Your task to perform on an android device: check android version Image 0: 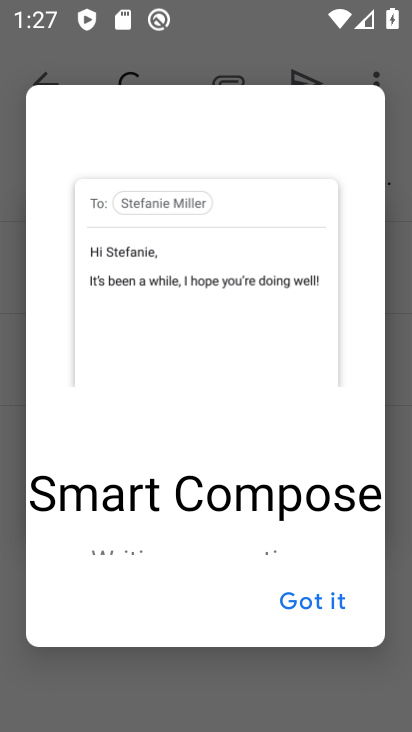
Step 0: press home button
Your task to perform on an android device: check android version Image 1: 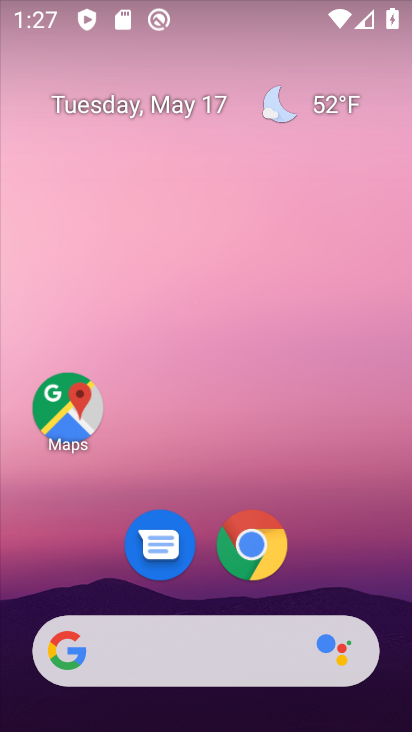
Step 1: drag from (355, 548) to (366, 114)
Your task to perform on an android device: check android version Image 2: 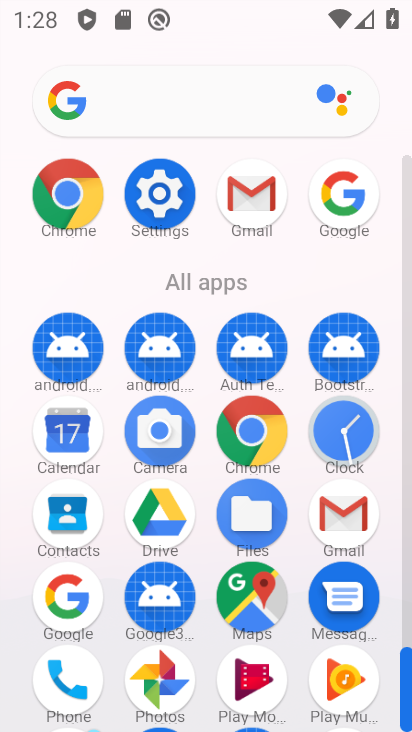
Step 2: click (164, 218)
Your task to perform on an android device: check android version Image 3: 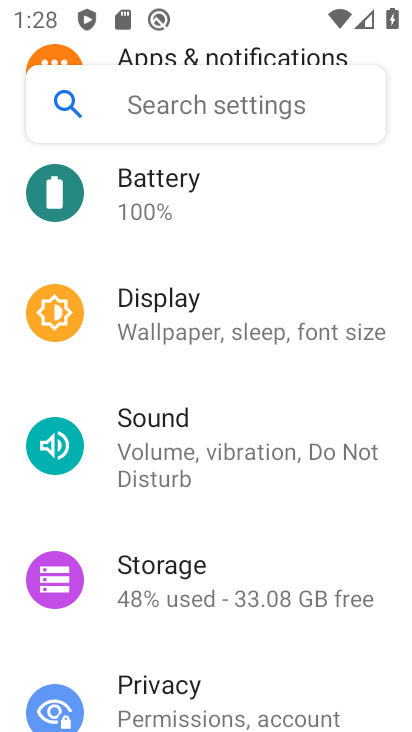
Step 3: drag from (349, 272) to (347, 394)
Your task to perform on an android device: check android version Image 4: 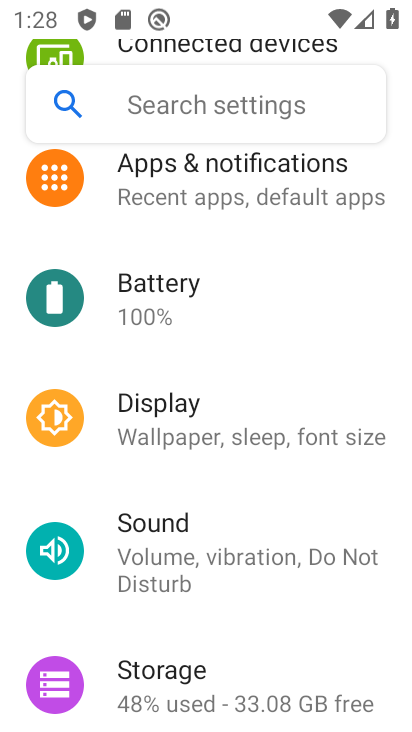
Step 4: drag from (361, 264) to (344, 394)
Your task to perform on an android device: check android version Image 5: 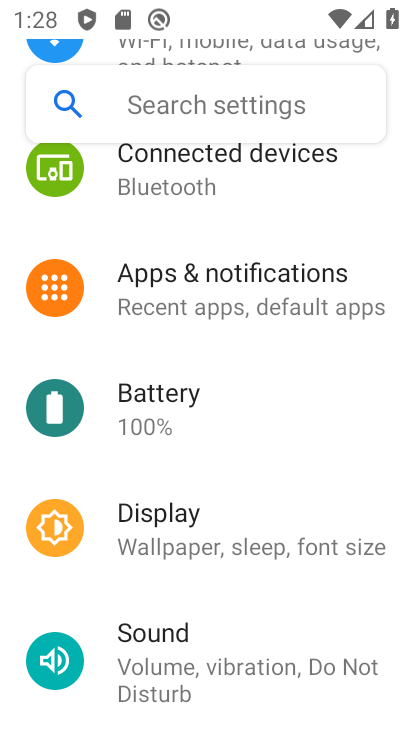
Step 5: drag from (368, 208) to (346, 368)
Your task to perform on an android device: check android version Image 6: 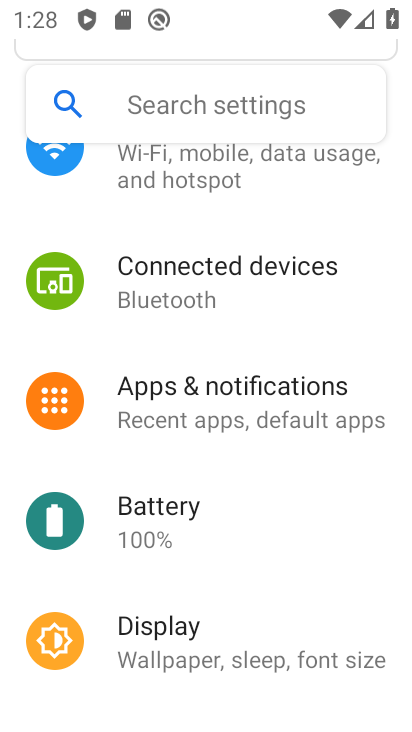
Step 6: drag from (360, 200) to (358, 323)
Your task to perform on an android device: check android version Image 7: 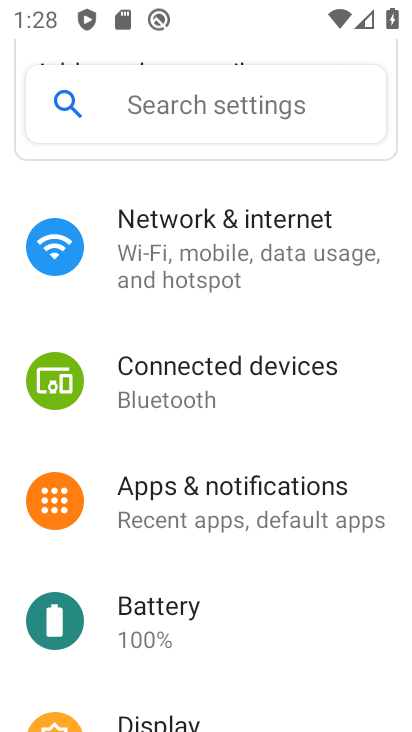
Step 7: drag from (357, 187) to (361, 322)
Your task to perform on an android device: check android version Image 8: 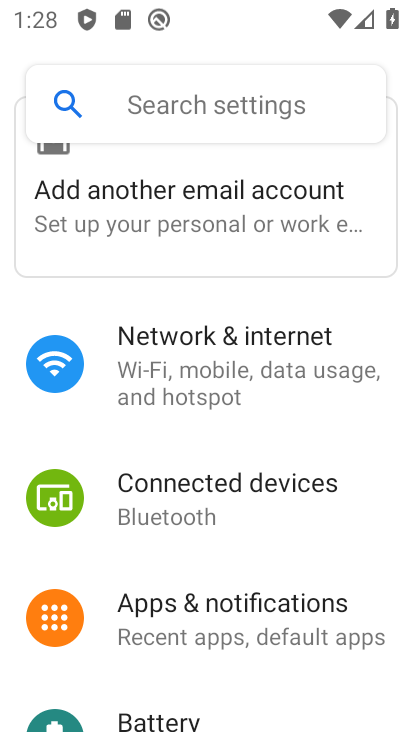
Step 8: drag from (342, 404) to (356, 314)
Your task to perform on an android device: check android version Image 9: 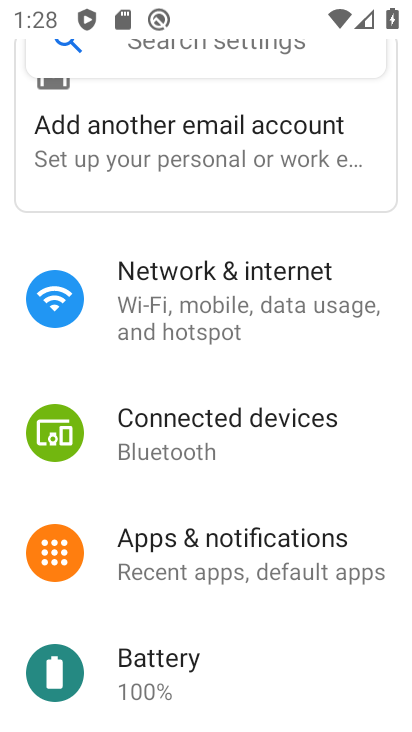
Step 9: drag from (348, 441) to (362, 357)
Your task to perform on an android device: check android version Image 10: 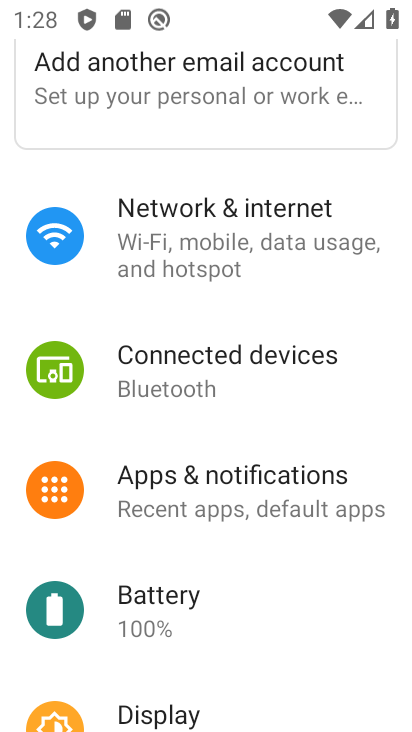
Step 10: drag from (354, 453) to (366, 352)
Your task to perform on an android device: check android version Image 11: 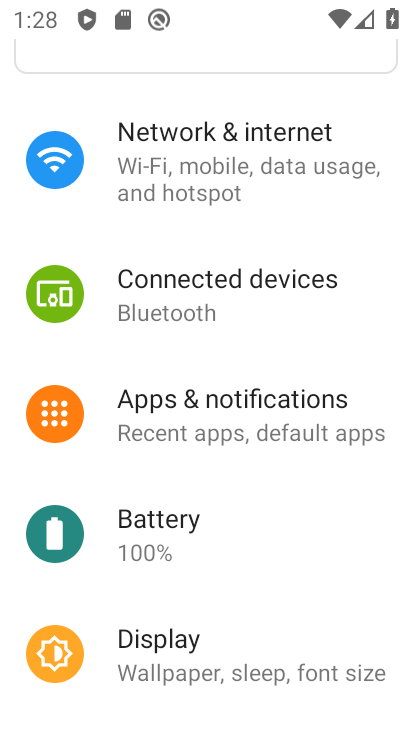
Step 11: drag from (338, 526) to (353, 418)
Your task to perform on an android device: check android version Image 12: 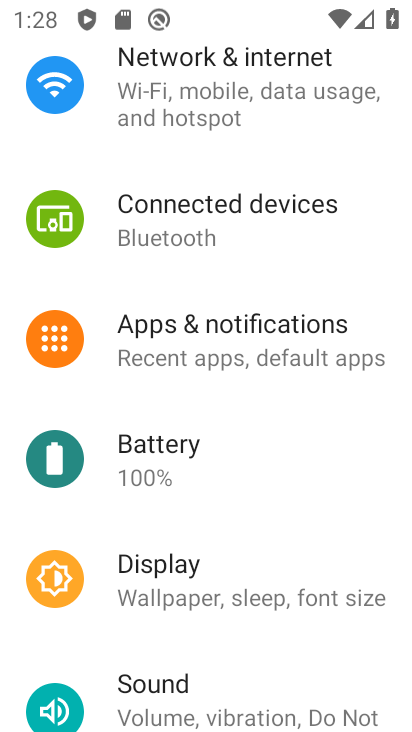
Step 12: drag from (355, 508) to (362, 444)
Your task to perform on an android device: check android version Image 13: 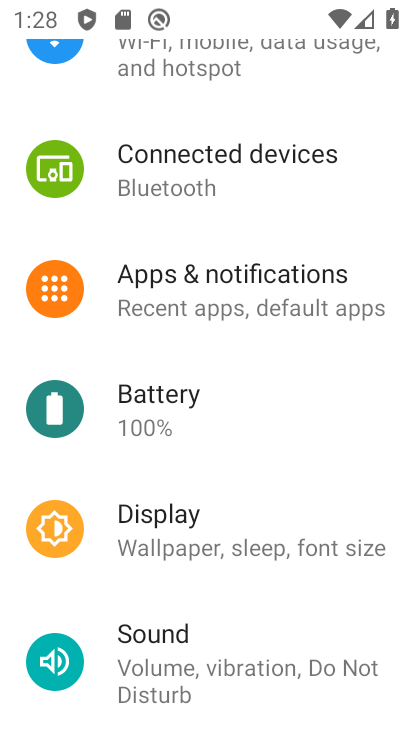
Step 13: drag from (345, 498) to (345, 382)
Your task to perform on an android device: check android version Image 14: 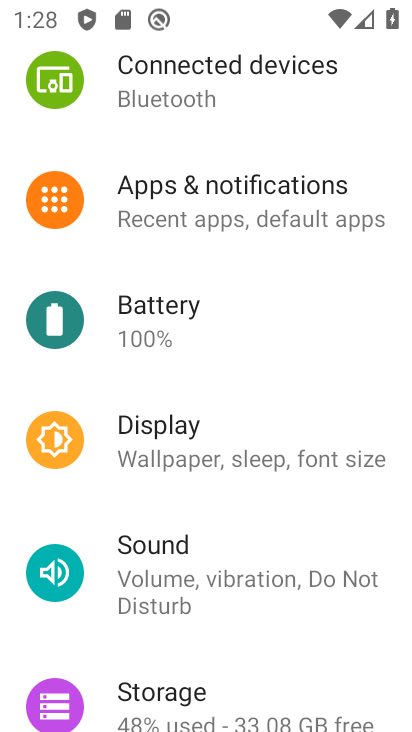
Step 14: drag from (339, 521) to (338, 430)
Your task to perform on an android device: check android version Image 15: 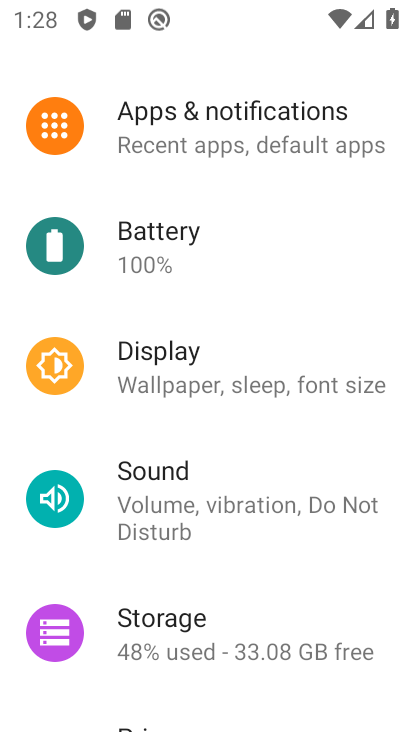
Step 15: drag from (321, 563) to (329, 456)
Your task to perform on an android device: check android version Image 16: 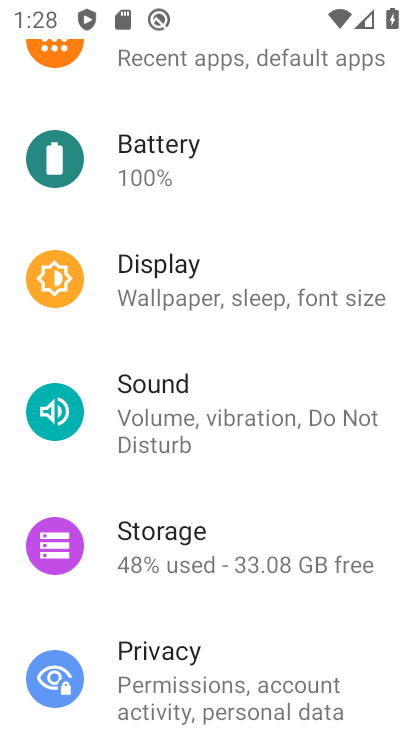
Step 16: drag from (324, 593) to (340, 494)
Your task to perform on an android device: check android version Image 17: 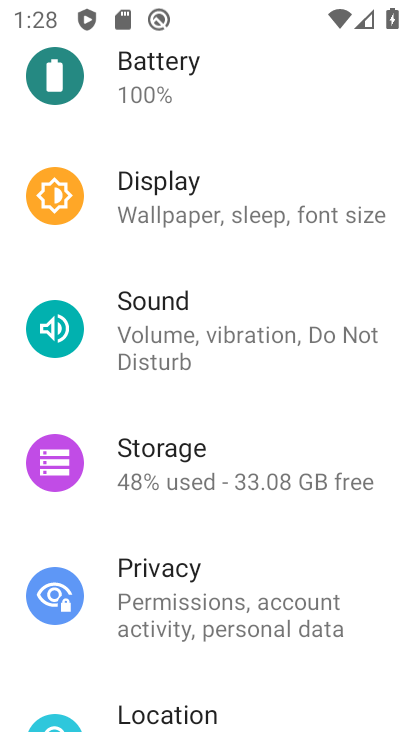
Step 17: drag from (328, 583) to (340, 501)
Your task to perform on an android device: check android version Image 18: 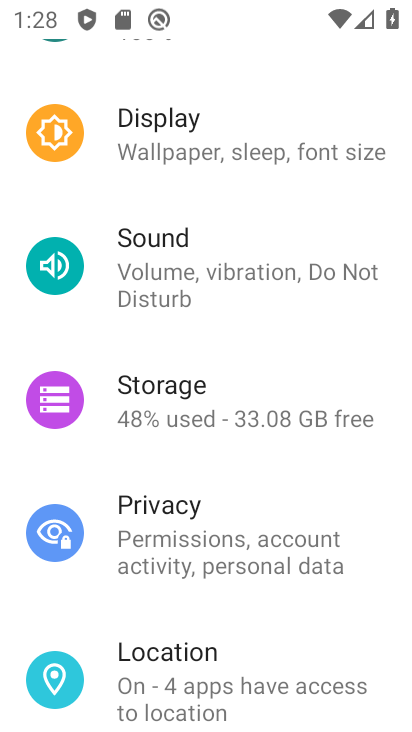
Step 18: drag from (322, 583) to (334, 507)
Your task to perform on an android device: check android version Image 19: 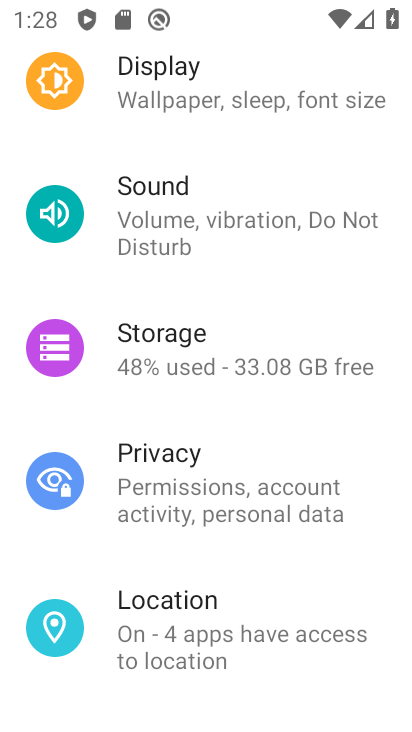
Step 19: drag from (319, 571) to (335, 513)
Your task to perform on an android device: check android version Image 20: 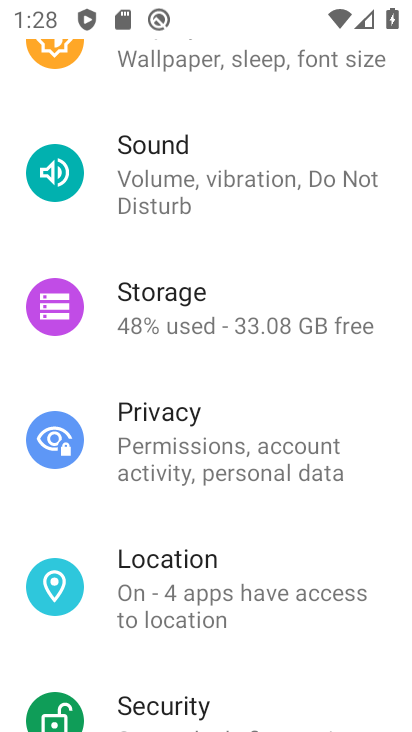
Step 20: drag from (322, 562) to (333, 477)
Your task to perform on an android device: check android version Image 21: 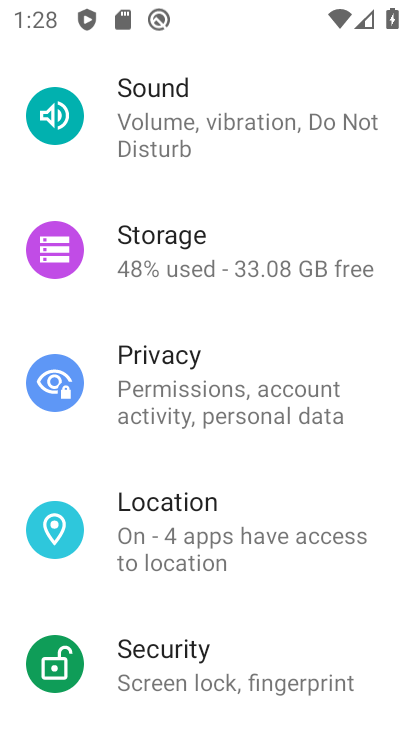
Step 21: drag from (303, 604) to (325, 498)
Your task to perform on an android device: check android version Image 22: 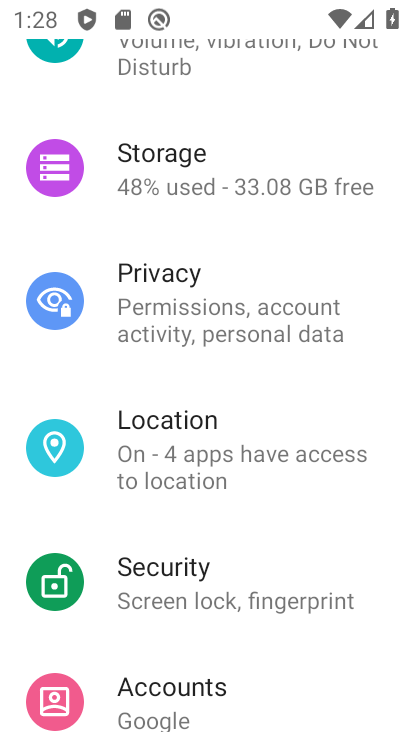
Step 22: drag from (317, 558) to (326, 498)
Your task to perform on an android device: check android version Image 23: 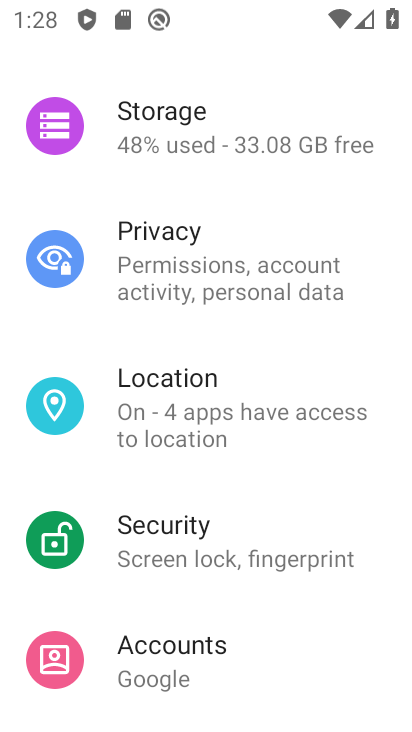
Step 23: drag from (310, 598) to (312, 498)
Your task to perform on an android device: check android version Image 24: 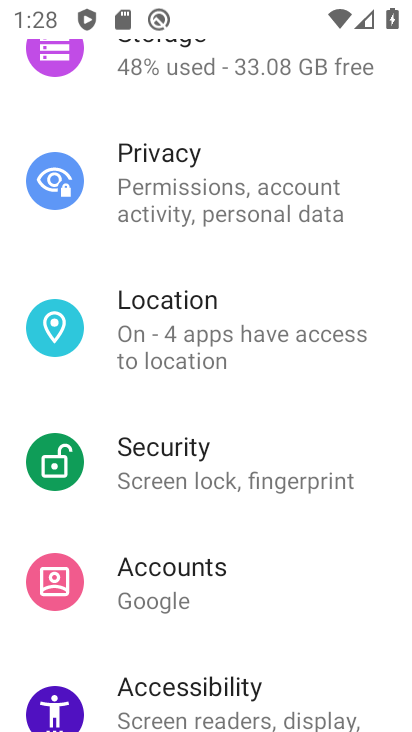
Step 24: drag from (305, 619) to (315, 530)
Your task to perform on an android device: check android version Image 25: 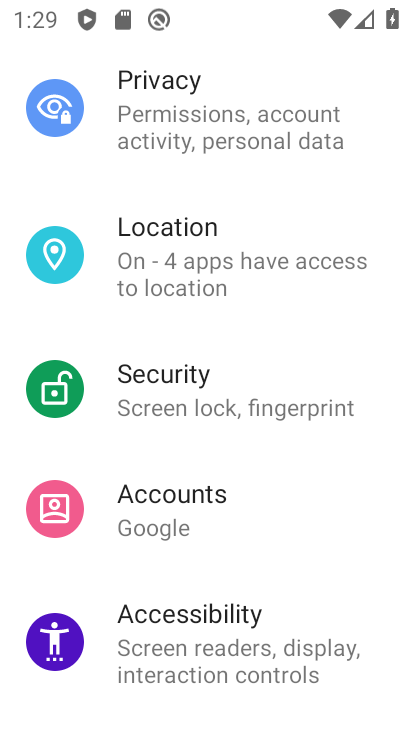
Step 25: click (308, 574)
Your task to perform on an android device: check android version Image 26: 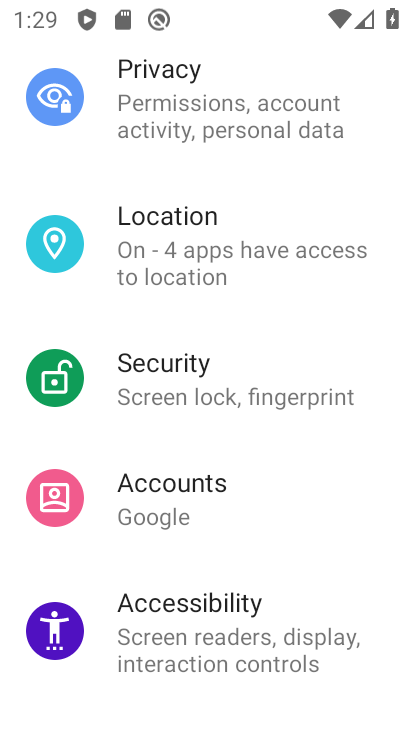
Step 26: drag from (310, 578) to (308, 458)
Your task to perform on an android device: check android version Image 27: 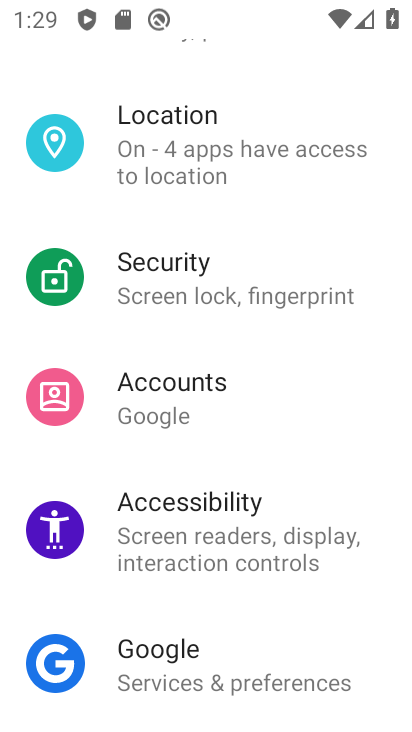
Step 27: drag from (300, 610) to (316, 528)
Your task to perform on an android device: check android version Image 28: 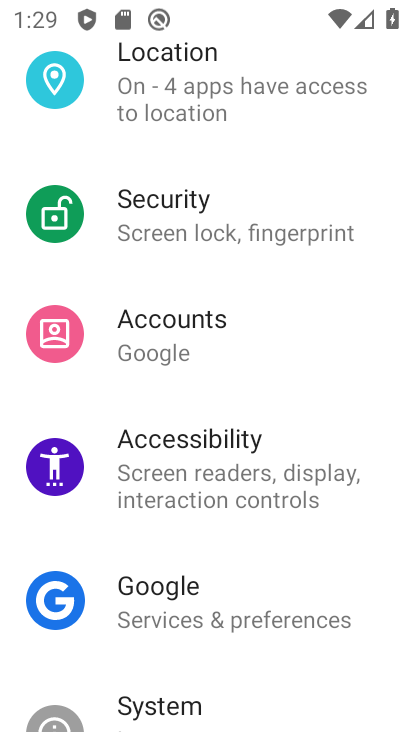
Step 28: drag from (316, 662) to (327, 560)
Your task to perform on an android device: check android version Image 29: 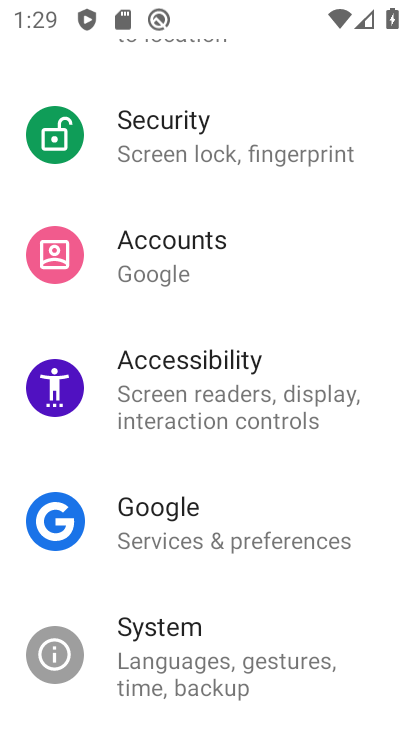
Step 29: drag from (325, 619) to (331, 536)
Your task to perform on an android device: check android version Image 30: 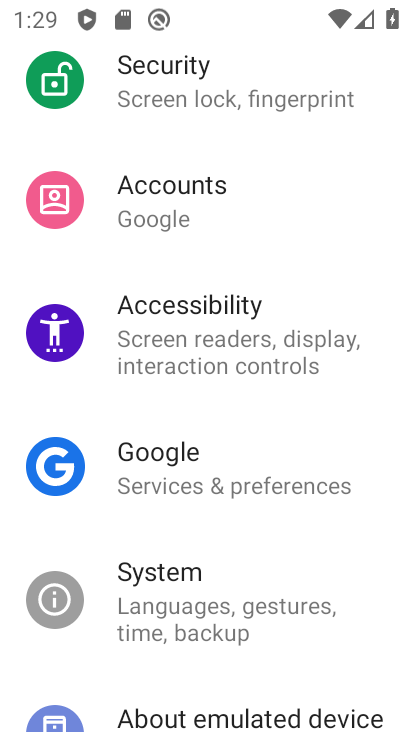
Step 30: click (293, 602)
Your task to perform on an android device: check android version Image 31: 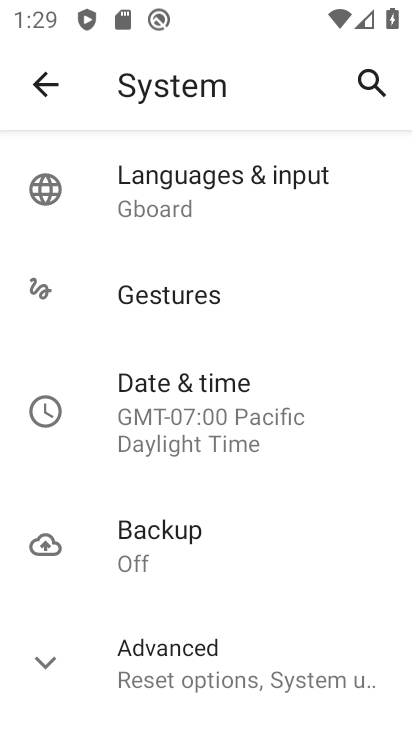
Step 31: click (253, 668)
Your task to perform on an android device: check android version Image 32: 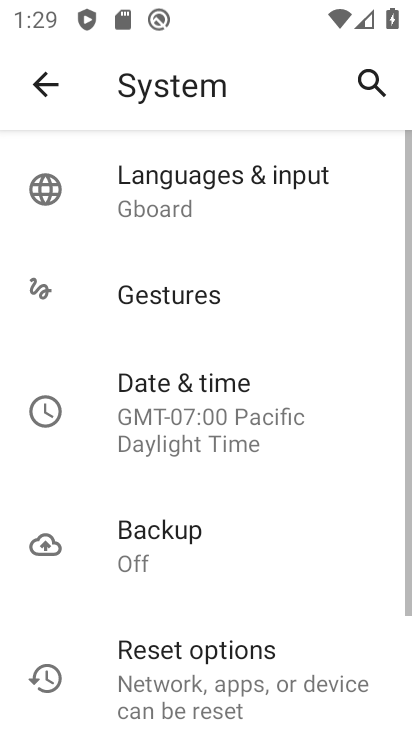
Step 32: drag from (274, 654) to (287, 455)
Your task to perform on an android device: check android version Image 33: 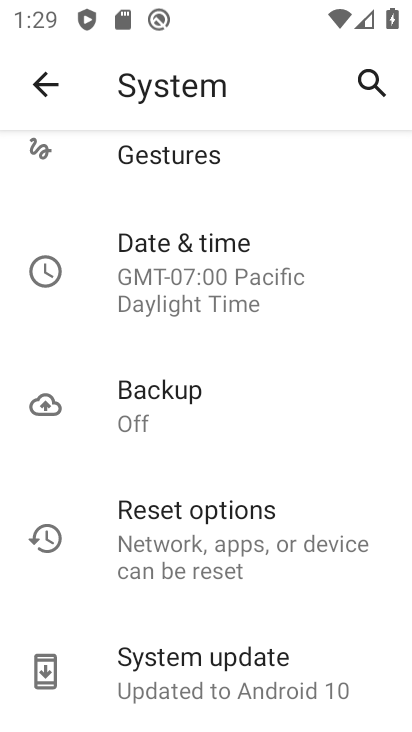
Step 33: click (283, 672)
Your task to perform on an android device: check android version Image 34: 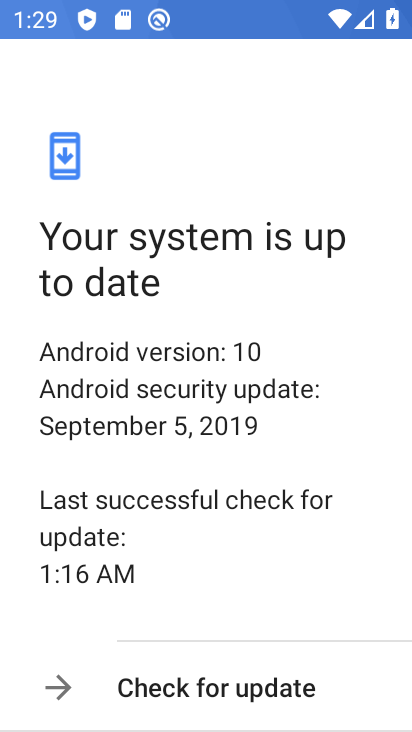
Step 34: task complete